Your task to perform on an android device: change text size in settings app Image 0: 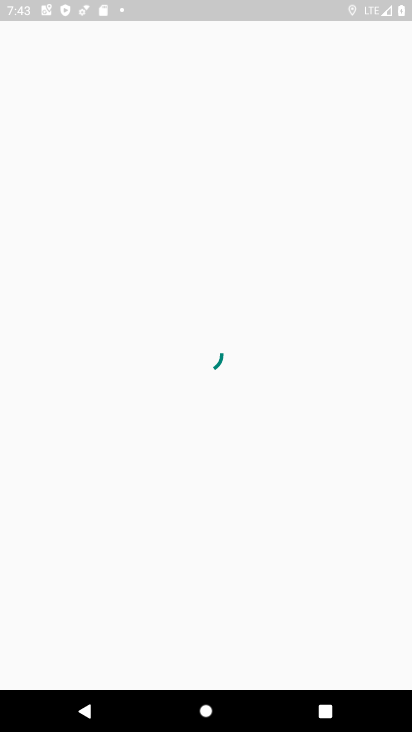
Step 0: press home button
Your task to perform on an android device: change text size in settings app Image 1: 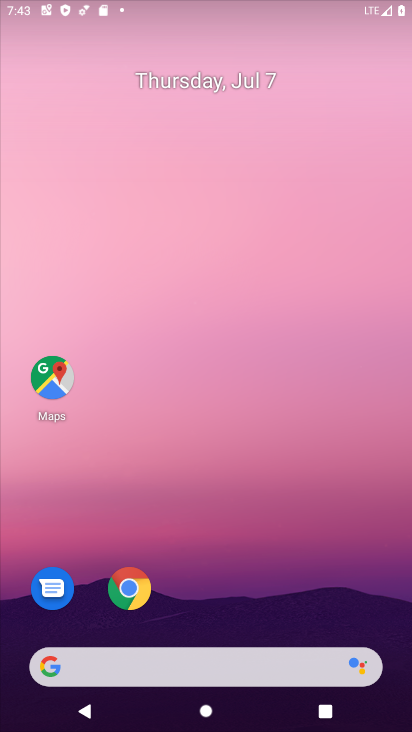
Step 1: drag from (254, 616) to (263, 344)
Your task to perform on an android device: change text size in settings app Image 2: 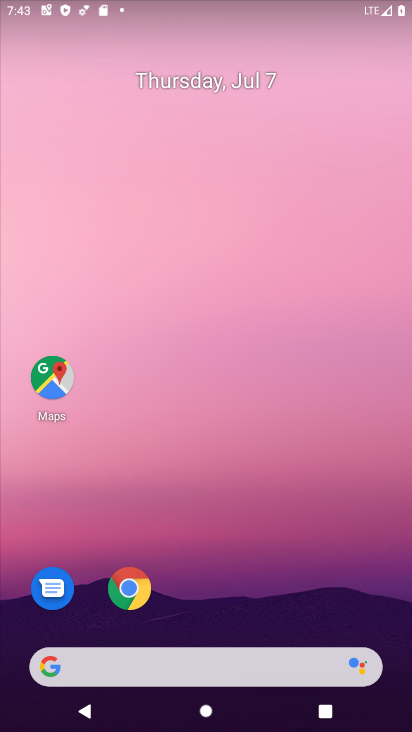
Step 2: drag from (250, 652) to (320, 283)
Your task to perform on an android device: change text size in settings app Image 3: 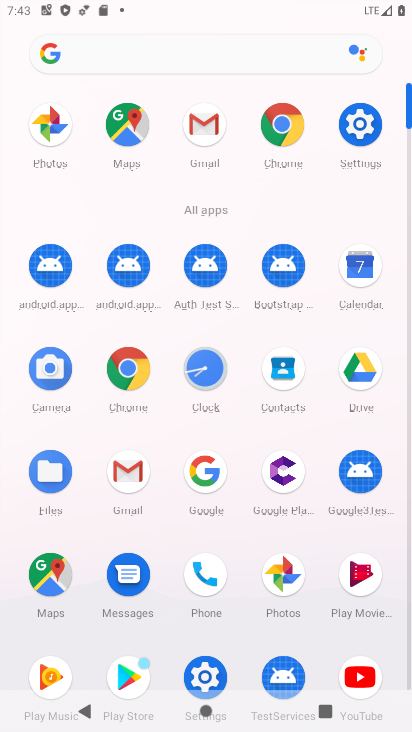
Step 3: click (361, 125)
Your task to perform on an android device: change text size in settings app Image 4: 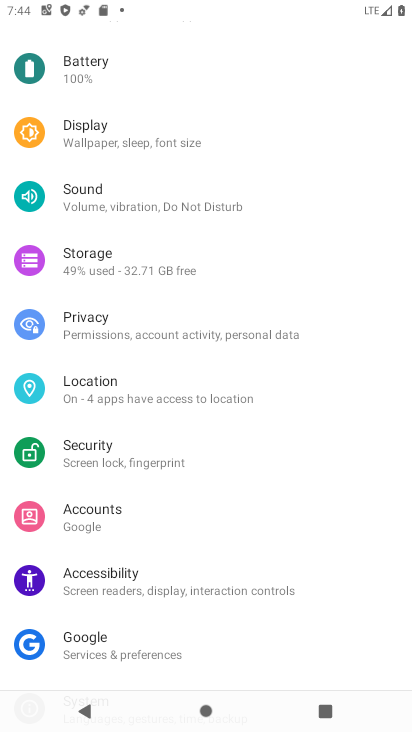
Step 4: click (110, 573)
Your task to perform on an android device: change text size in settings app Image 5: 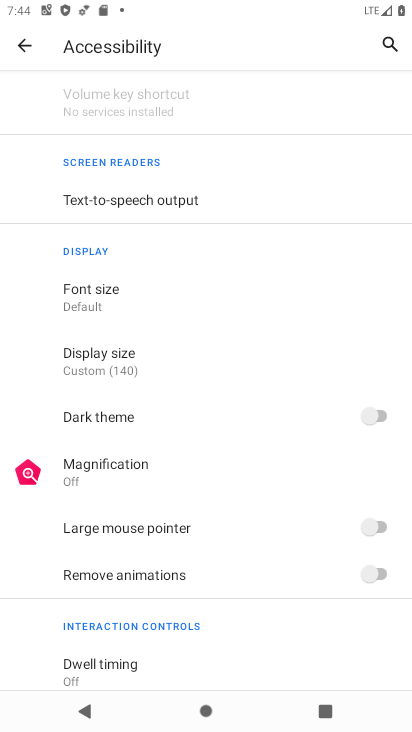
Step 5: click (125, 284)
Your task to perform on an android device: change text size in settings app Image 6: 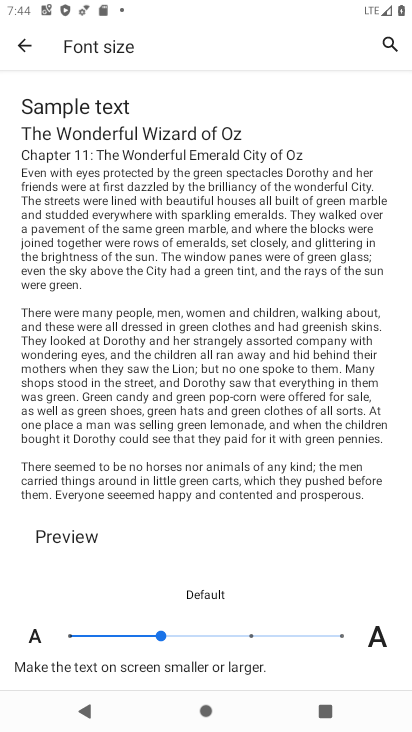
Step 6: click (244, 634)
Your task to perform on an android device: change text size in settings app Image 7: 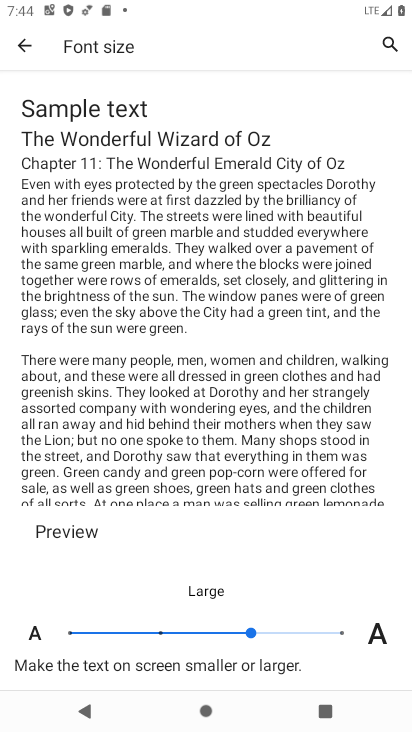
Step 7: task complete